Your task to perform on an android device: Go to privacy settings Image 0: 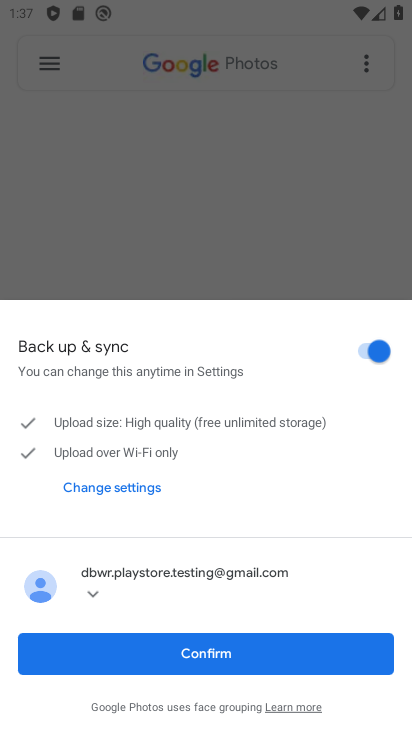
Step 0: press home button
Your task to perform on an android device: Go to privacy settings Image 1: 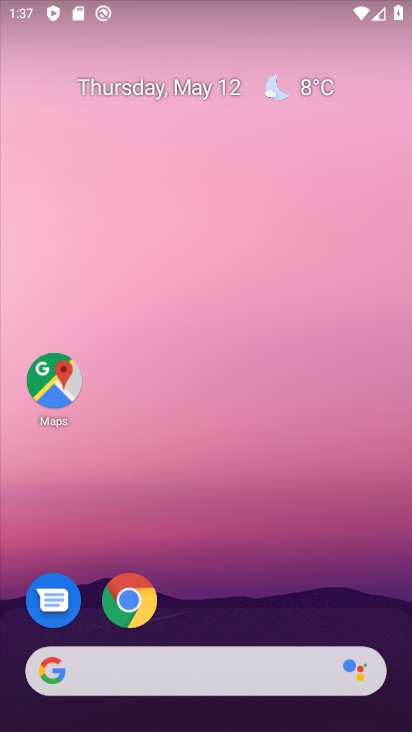
Step 1: drag from (207, 606) to (239, 92)
Your task to perform on an android device: Go to privacy settings Image 2: 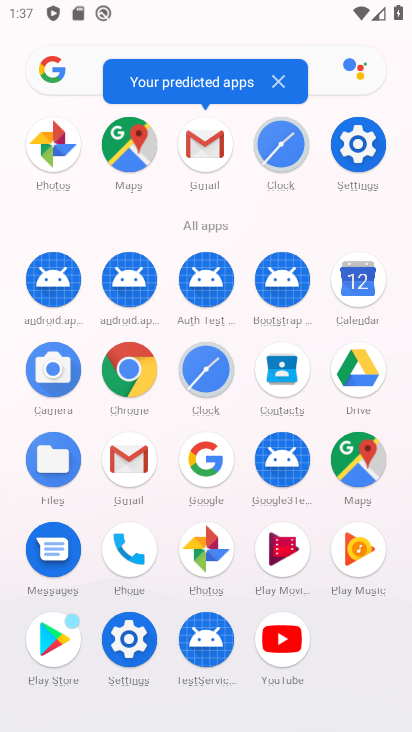
Step 2: click (129, 625)
Your task to perform on an android device: Go to privacy settings Image 3: 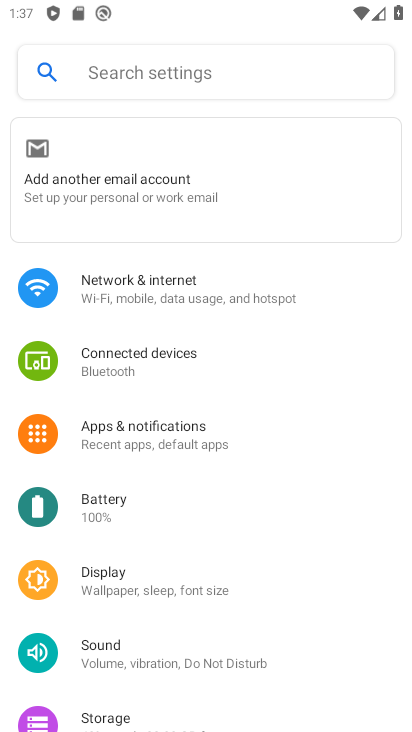
Step 3: drag from (145, 652) to (174, 341)
Your task to perform on an android device: Go to privacy settings Image 4: 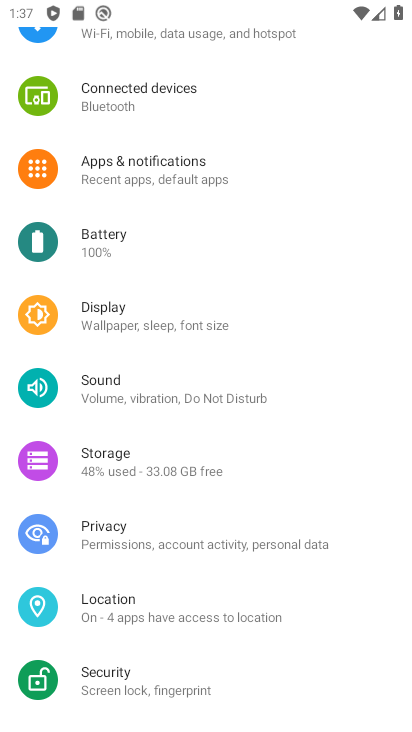
Step 4: click (151, 535)
Your task to perform on an android device: Go to privacy settings Image 5: 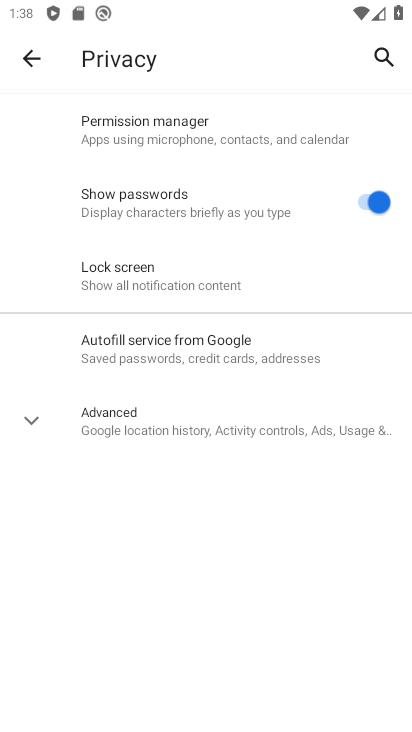
Step 5: task complete